Your task to perform on an android device: stop showing notifications on the lock screen Image 0: 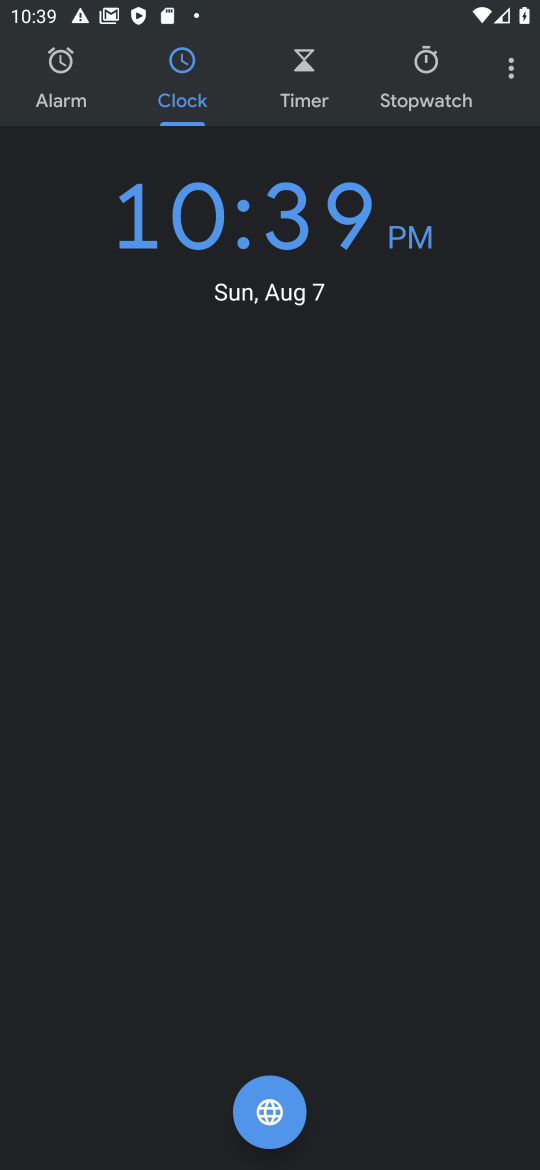
Step 0: press home button
Your task to perform on an android device: stop showing notifications on the lock screen Image 1: 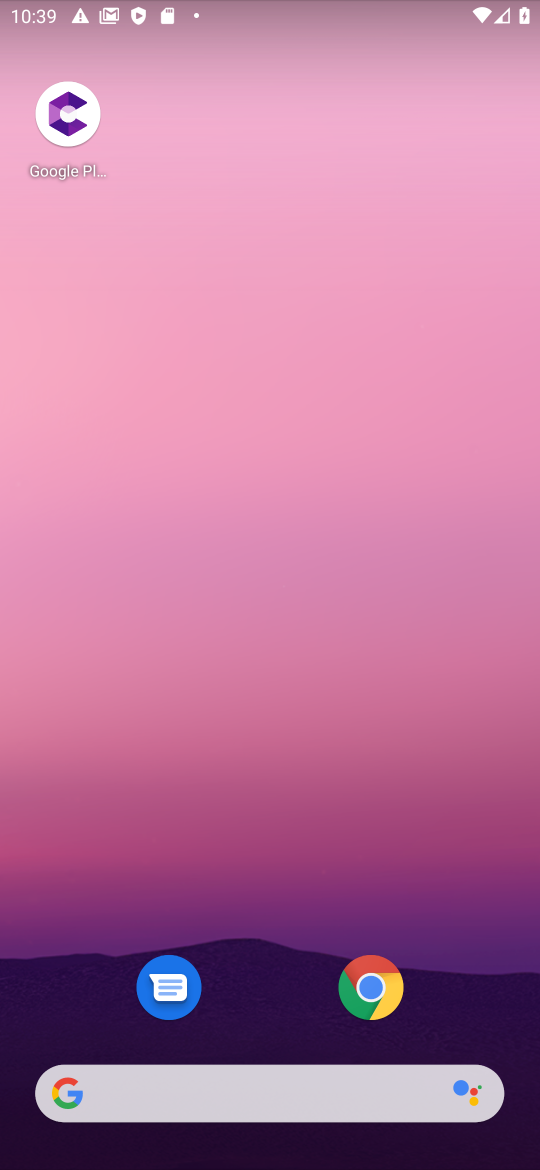
Step 1: click (200, 264)
Your task to perform on an android device: stop showing notifications on the lock screen Image 2: 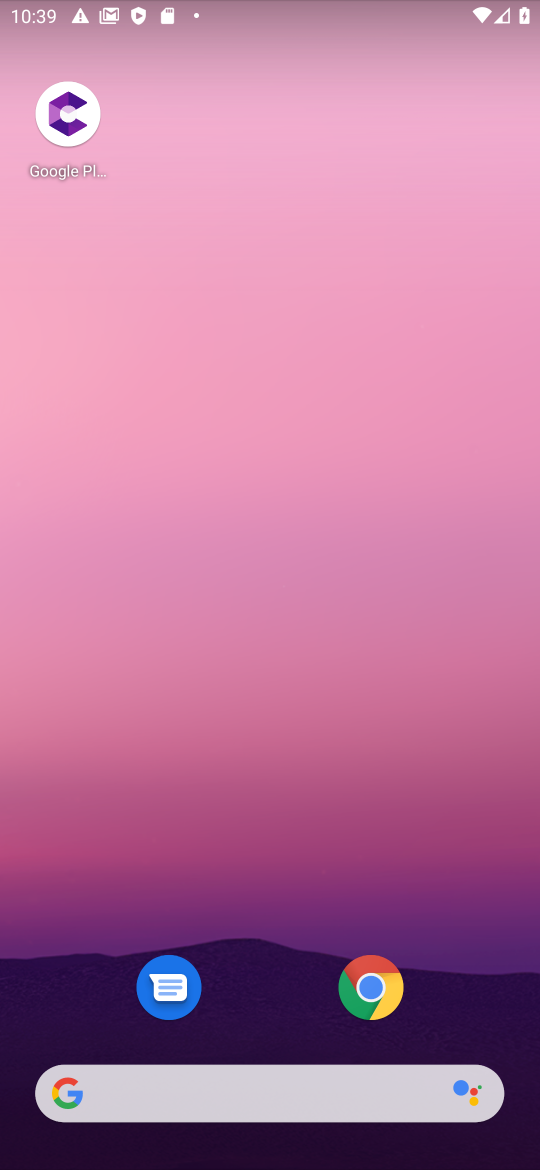
Step 2: drag from (269, 1020) to (227, 679)
Your task to perform on an android device: stop showing notifications on the lock screen Image 3: 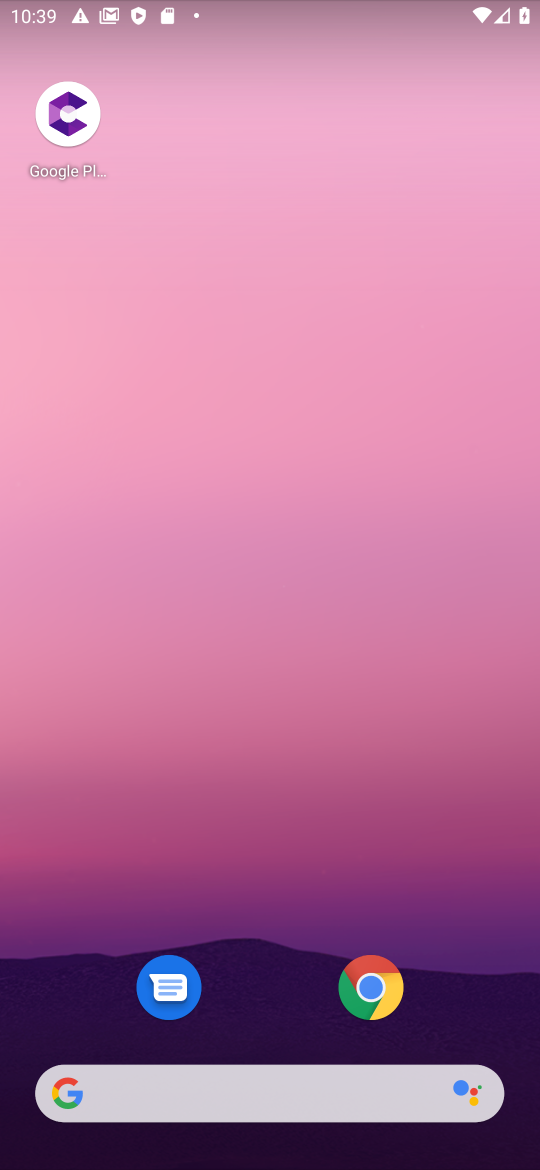
Step 3: drag from (260, 959) to (256, 316)
Your task to perform on an android device: stop showing notifications on the lock screen Image 4: 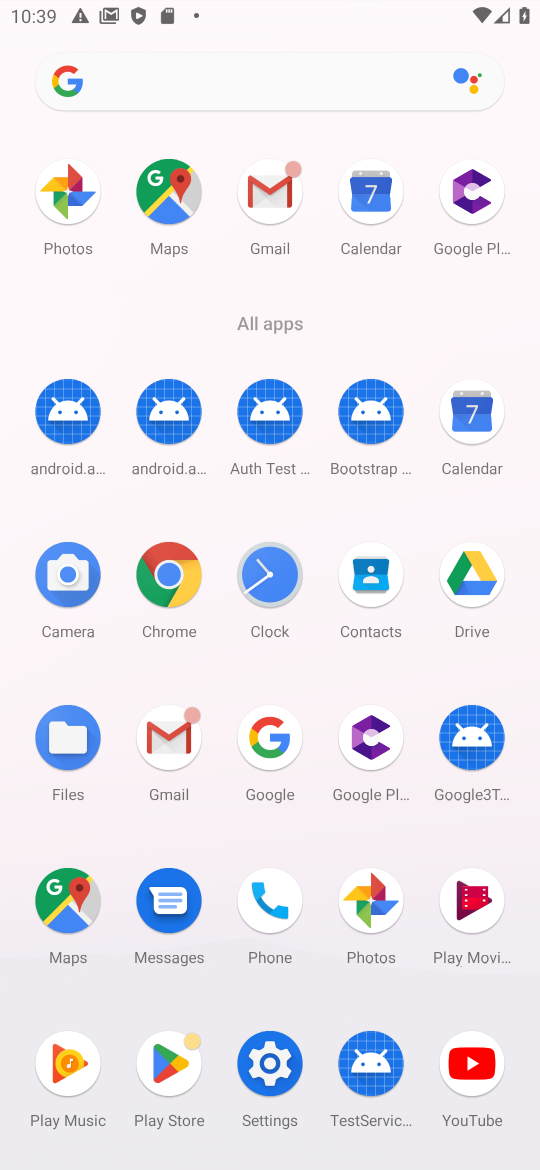
Step 4: click (276, 1052)
Your task to perform on an android device: stop showing notifications on the lock screen Image 5: 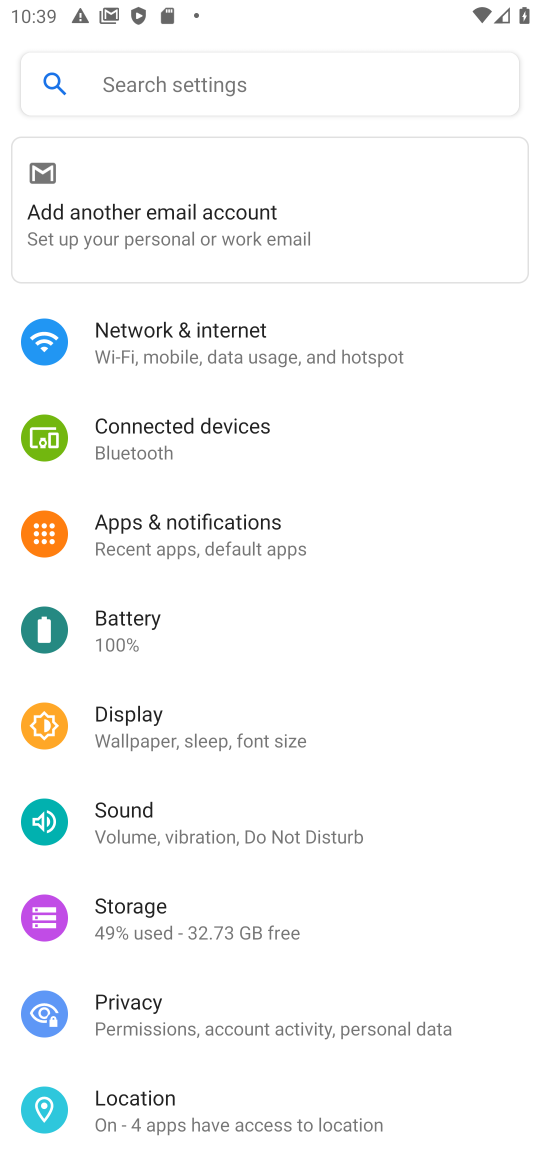
Step 5: click (208, 560)
Your task to perform on an android device: stop showing notifications on the lock screen Image 6: 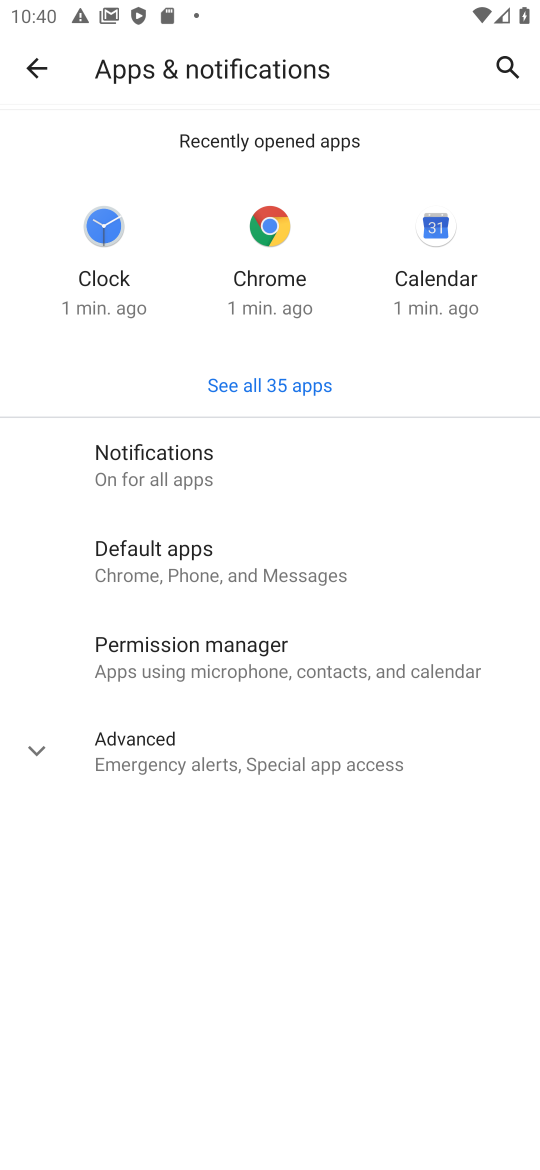
Step 6: click (223, 457)
Your task to perform on an android device: stop showing notifications on the lock screen Image 7: 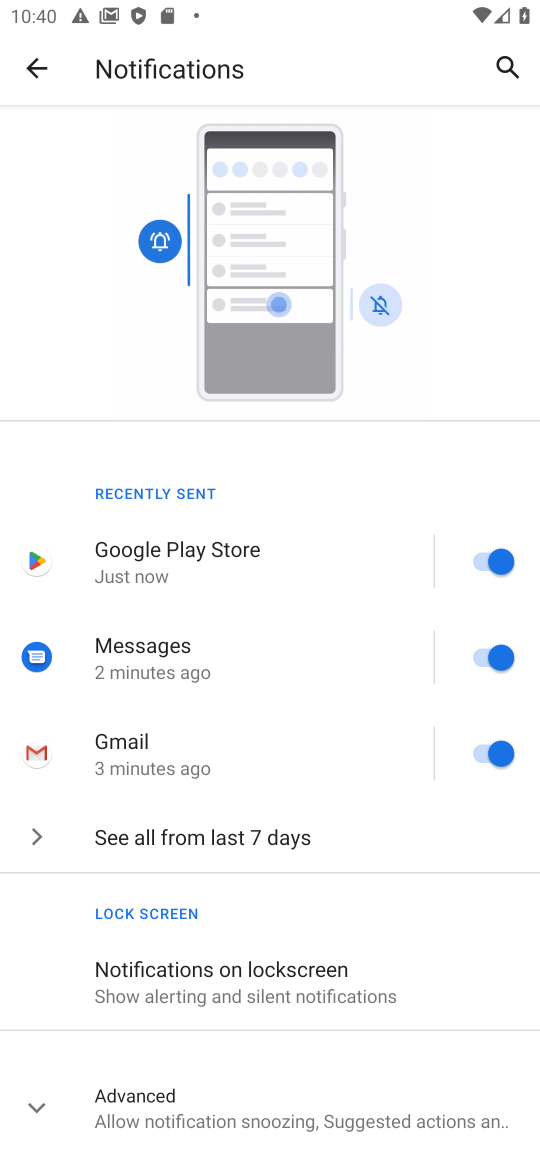
Step 7: click (243, 992)
Your task to perform on an android device: stop showing notifications on the lock screen Image 8: 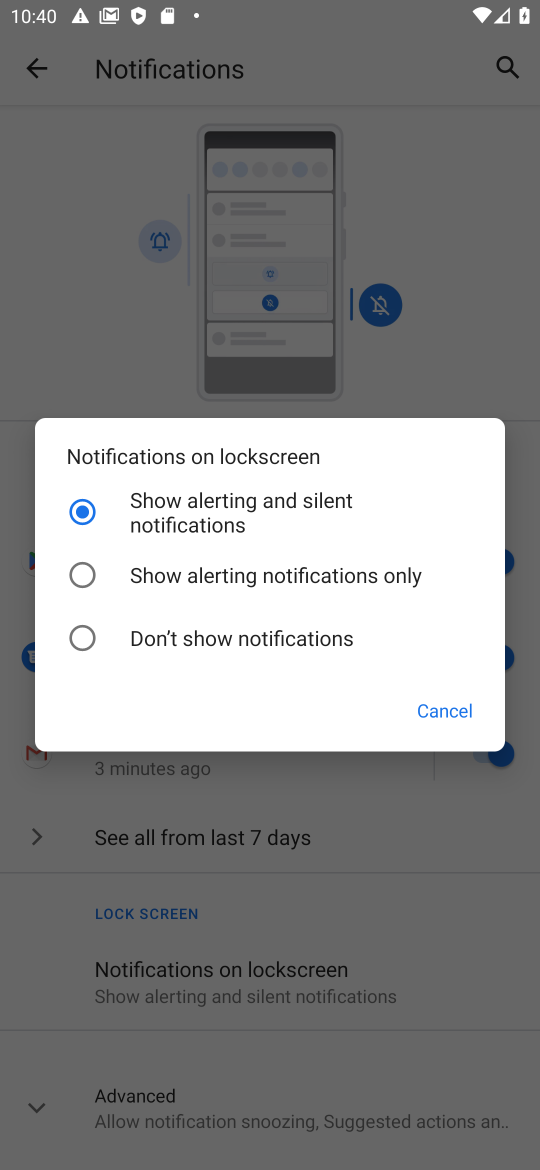
Step 8: click (234, 654)
Your task to perform on an android device: stop showing notifications on the lock screen Image 9: 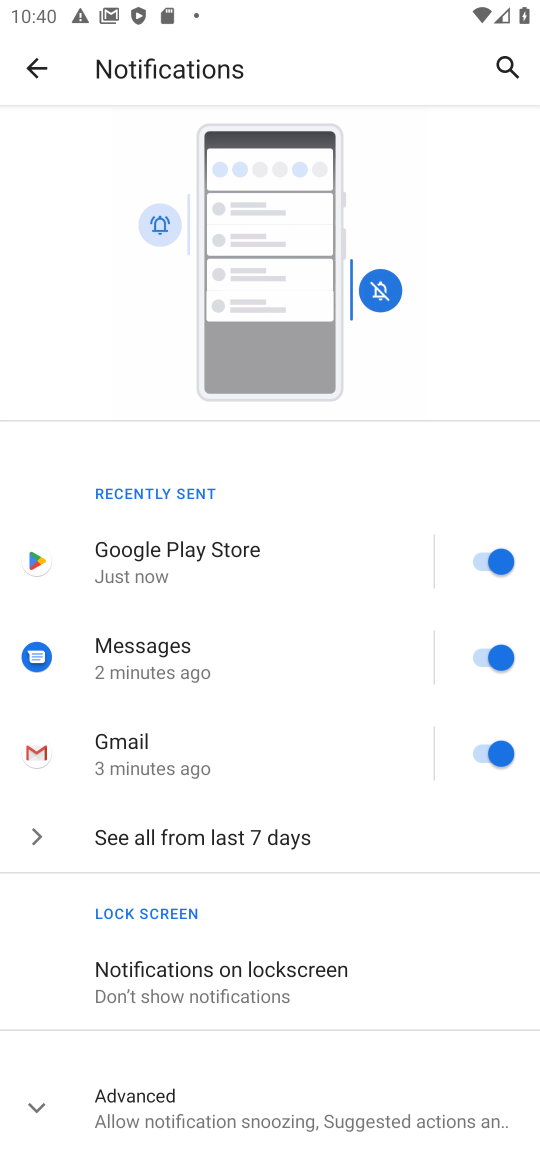
Step 9: task complete